Your task to perform on an android device: Clear all items from cart on ebay. Add razer huntsman to the cart on ebay, then select checkout. Image 0: 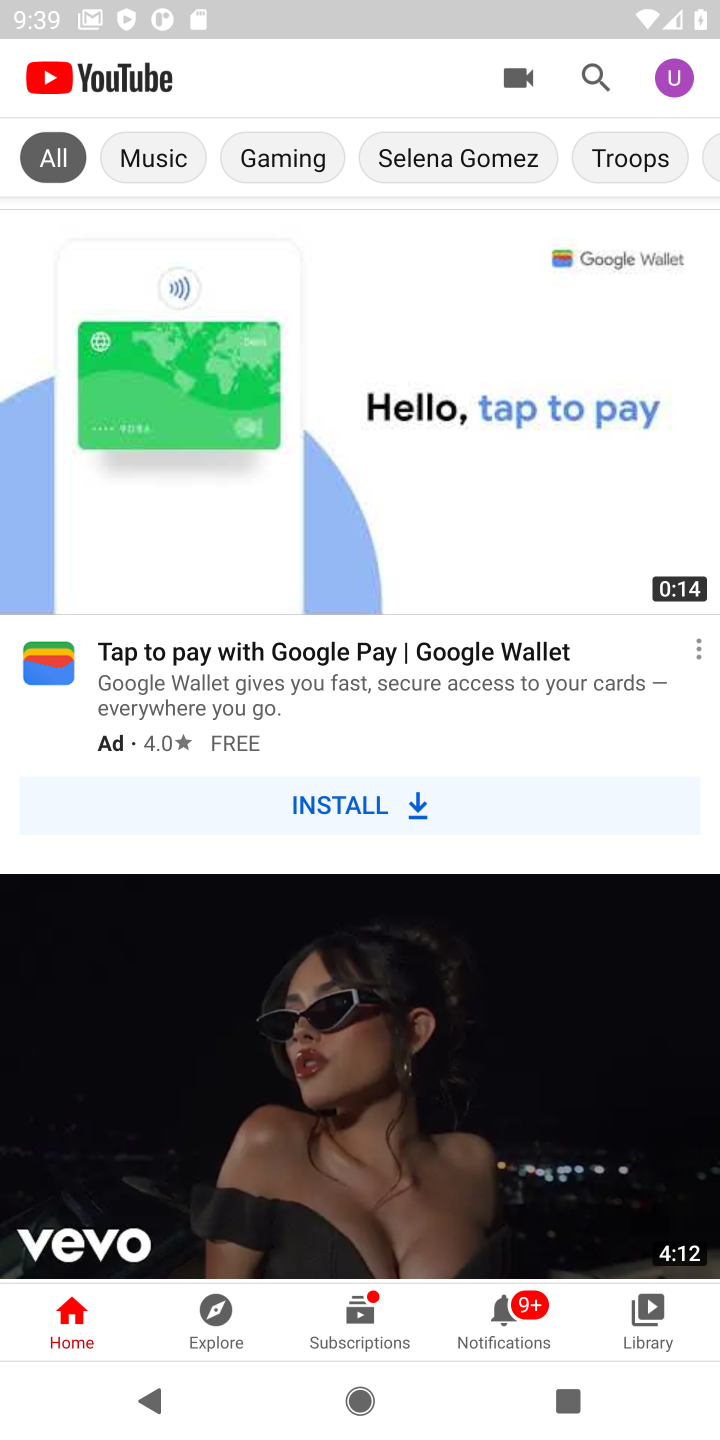
Step 0: press home button
Your task to perform on an android device: Clear all items from cart on ebay. Add razer huntsman to the cart on ebay, then select checkout. Image 1: 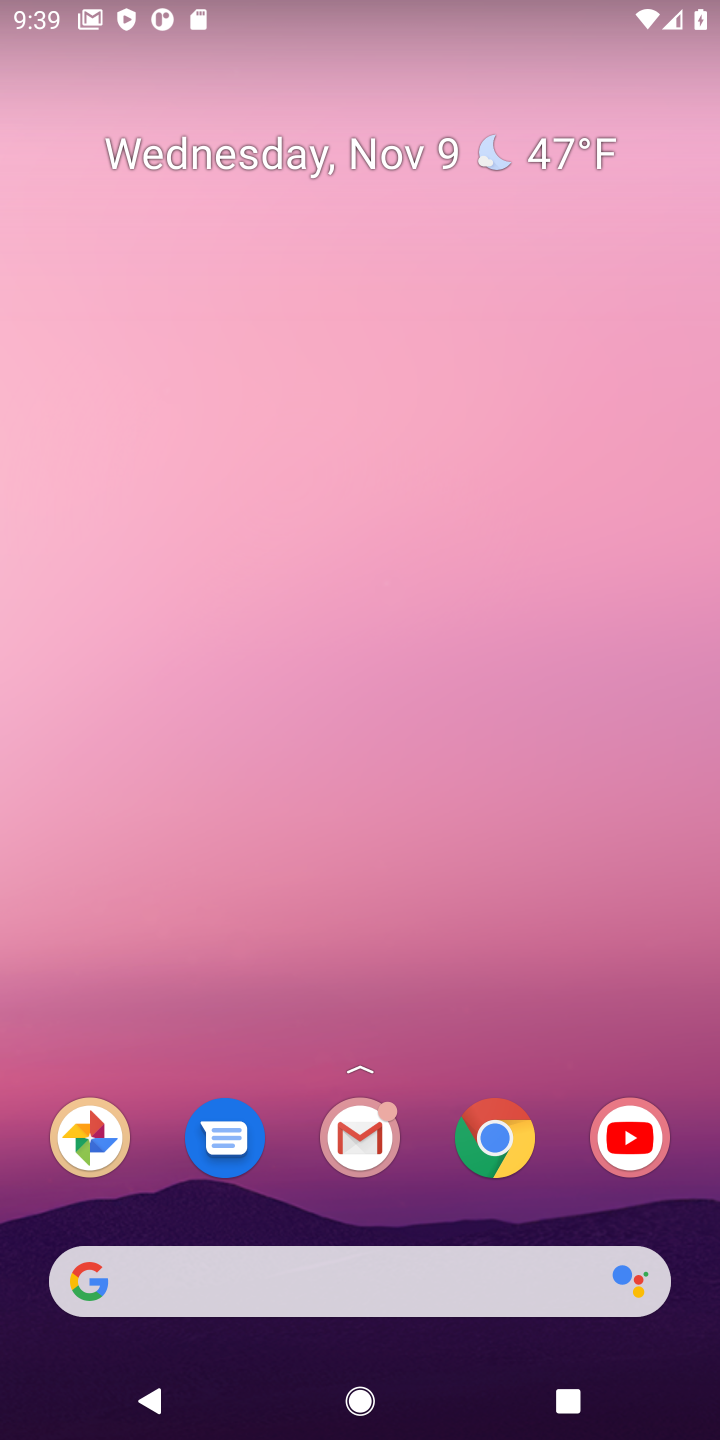
Step 1: drag from (455, 1134) to (416, 266)
Your task to perform on an android device: Clear all items from cart on ebay. Add razer huntsman to the cart on ebay, then select checkout. Image 2: 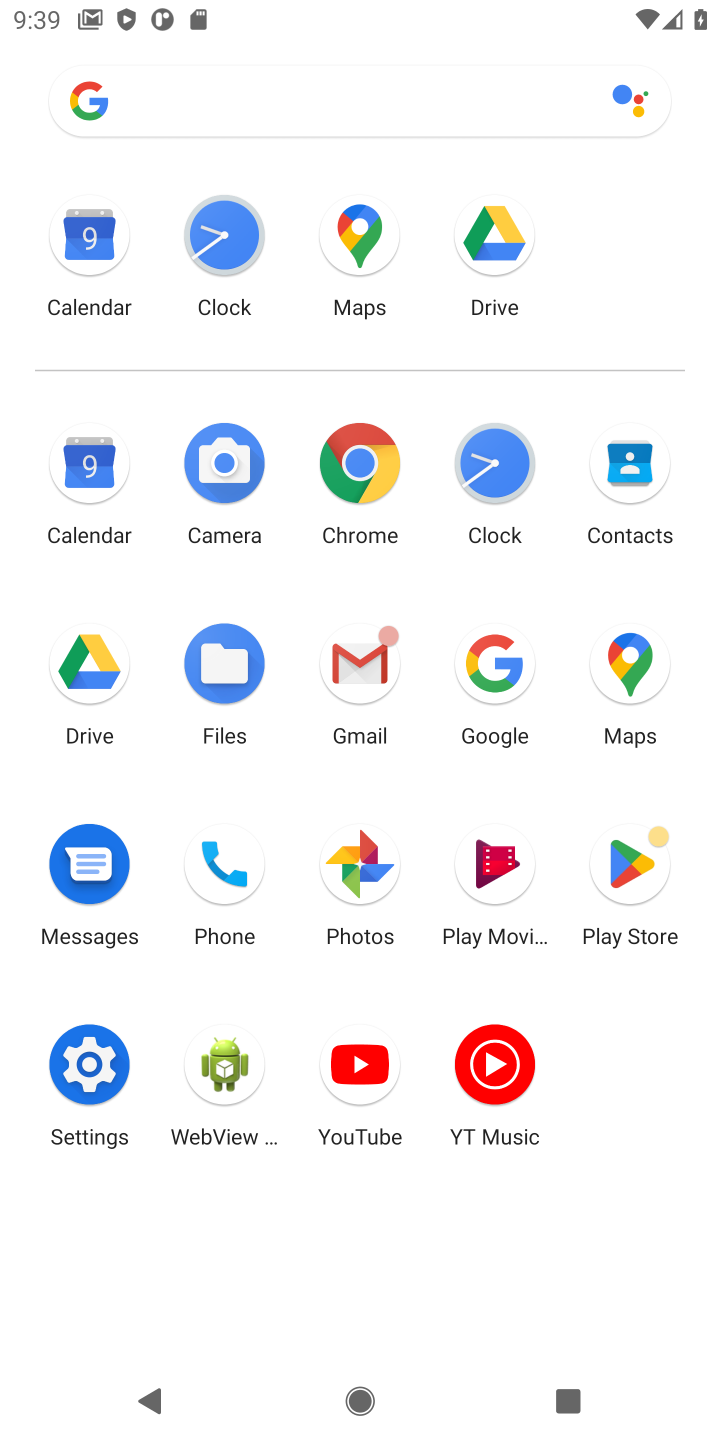
Step 2: click (368, 465)
Your task to perform on an android device: Clear all items from cart on ebay. Add razer huntsman to the cart on ebay, then select checkout. Image 3: 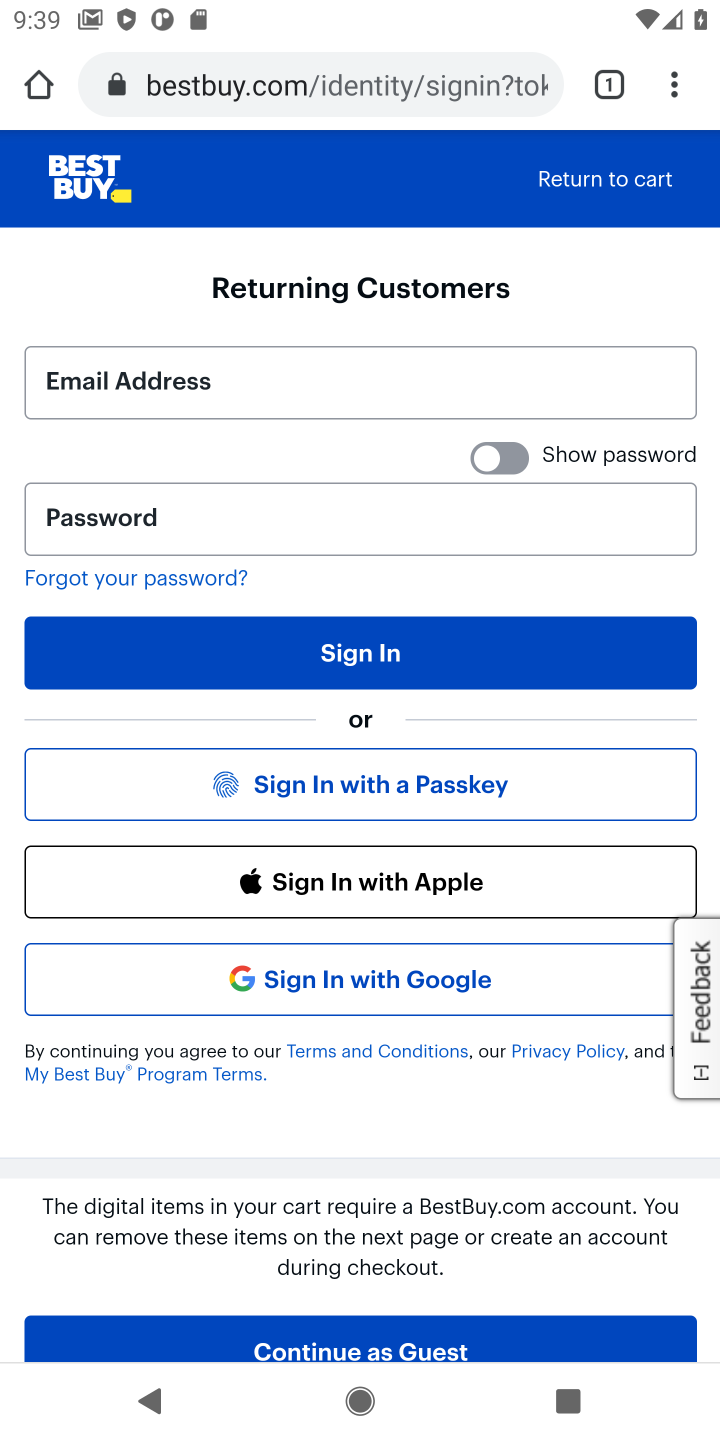
Step 3: click (289, 80)
Your task to perform on an android device: Clear all items from cart on ebay. Add razer huntsman to the cart on ebay, then select checkout. Image 4: 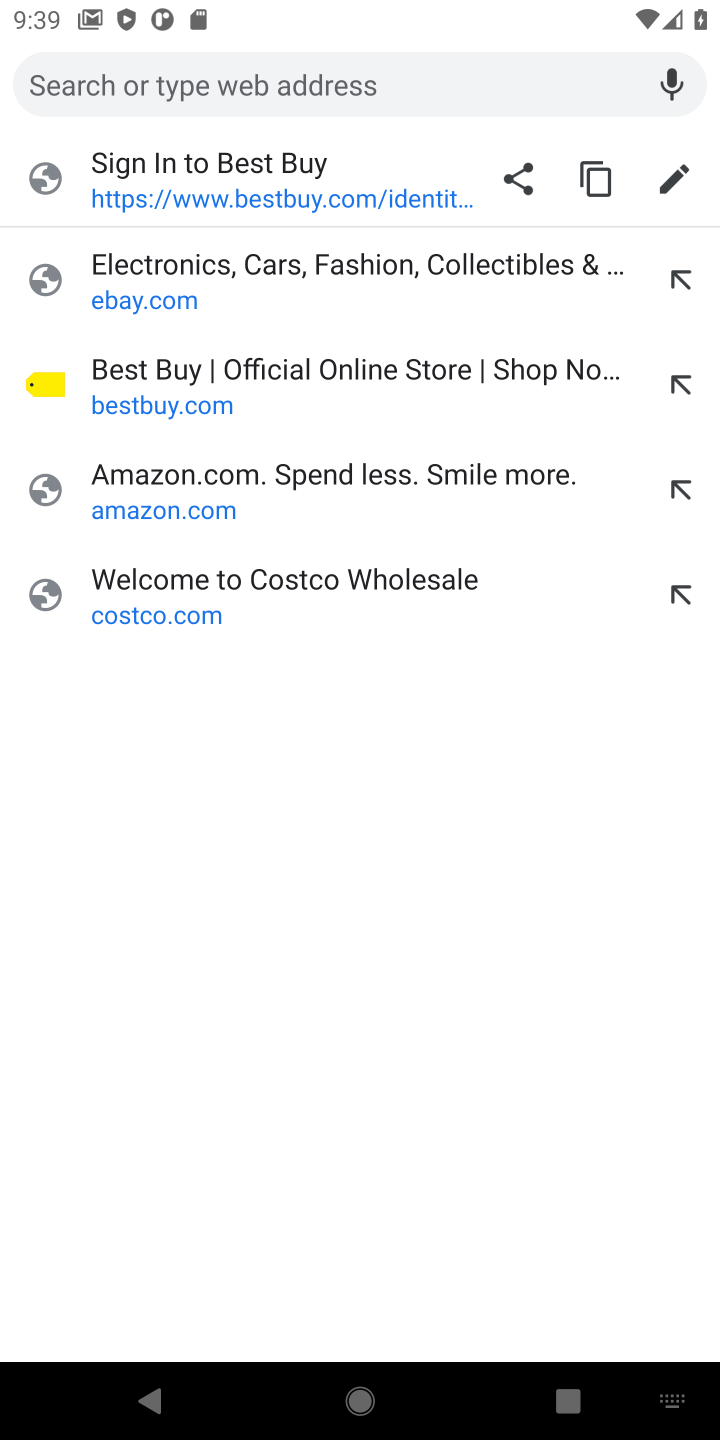
Step 4: type "ebay.com"
Your task to perform on an android device: Clear all items from cart on ebay. Add razer huntsman to the cart on ebay, then select checkout. Image 5: 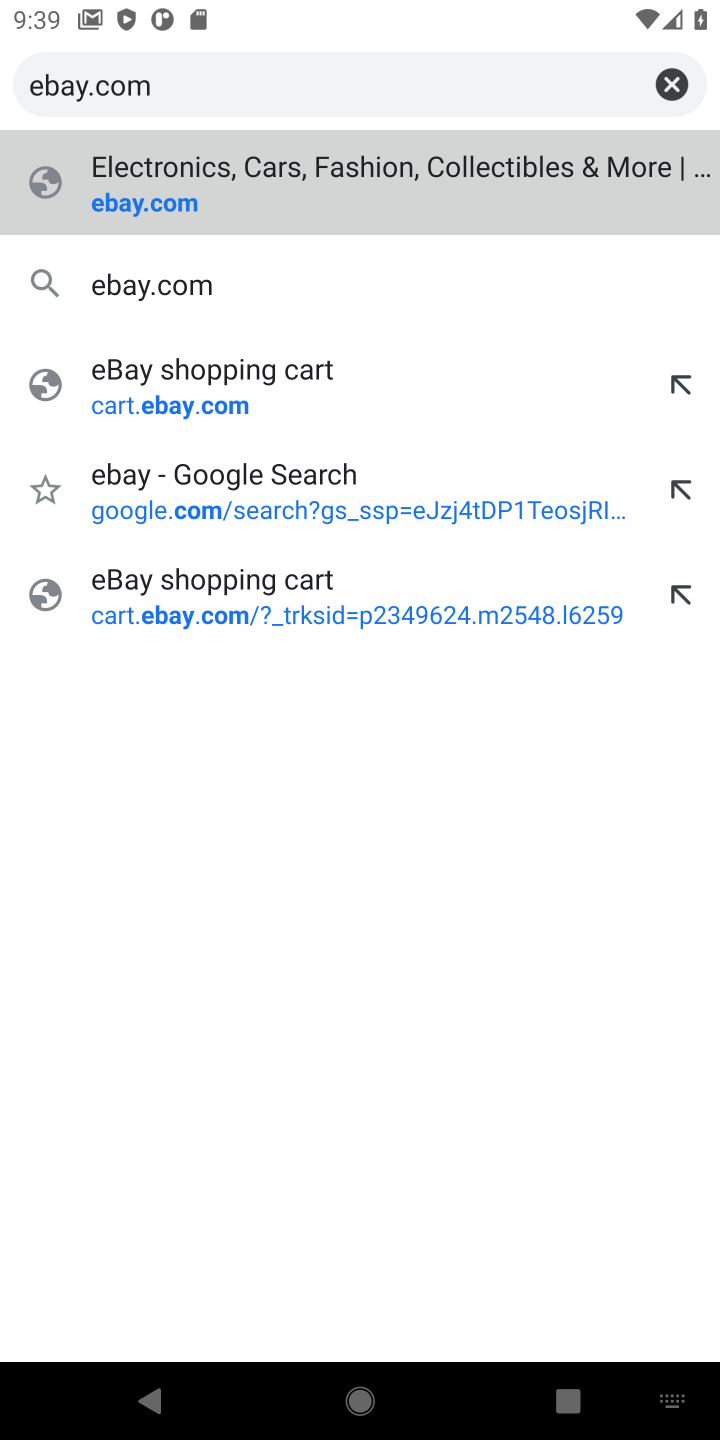
Step 5: press enter
Your task to perform on an android device: Clear all items from cart on ebay. Add razer huntsman to the cart on ebay, then select checkout. Image 6: 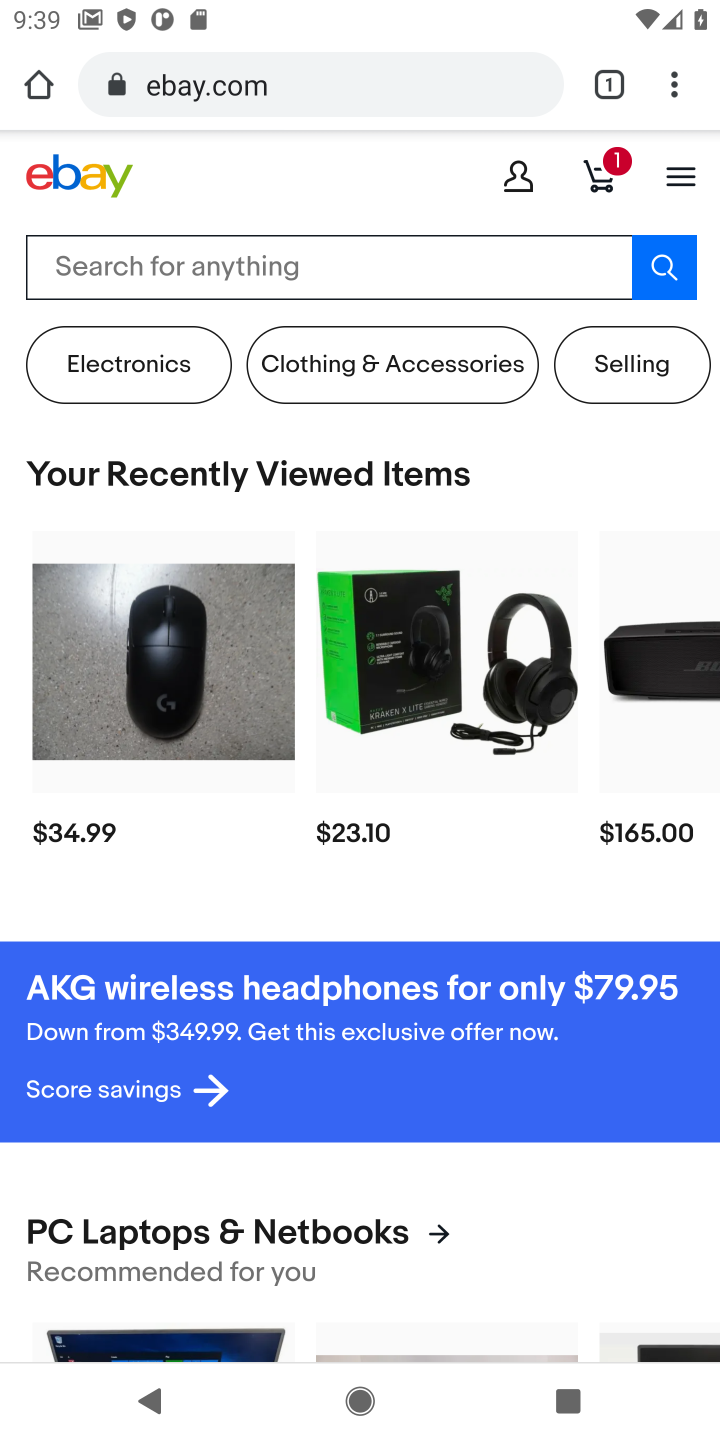
Step 6: click (601, 157)
Your task to perform on an android device: Clear all items from cart on ebay. Add razer huntsman to the cart on ebay, then select checkout. Image 7: 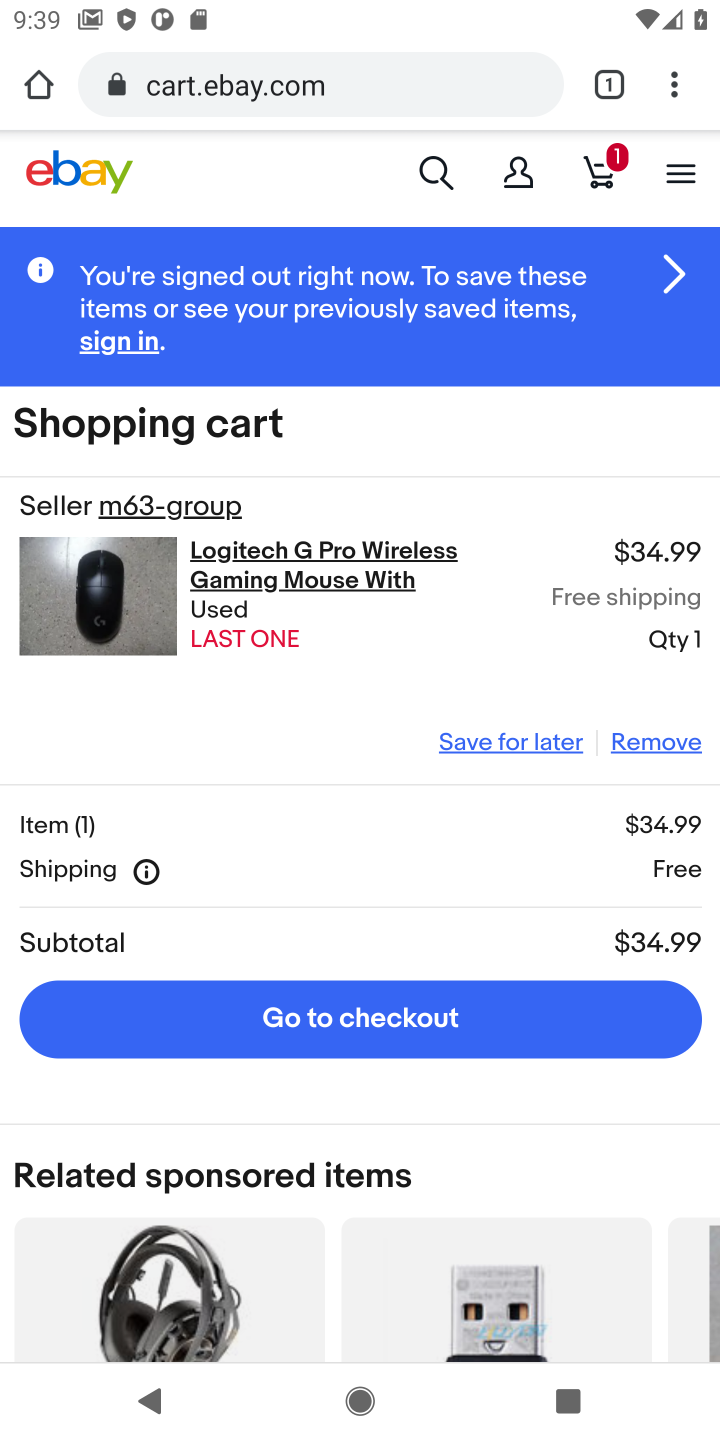
Step 7: click (665, 735)
Your task to perform on an android device: Clear all items from cart on ebay. Add razer huntsman to the cart on ebay, then select checkout. Image 8: 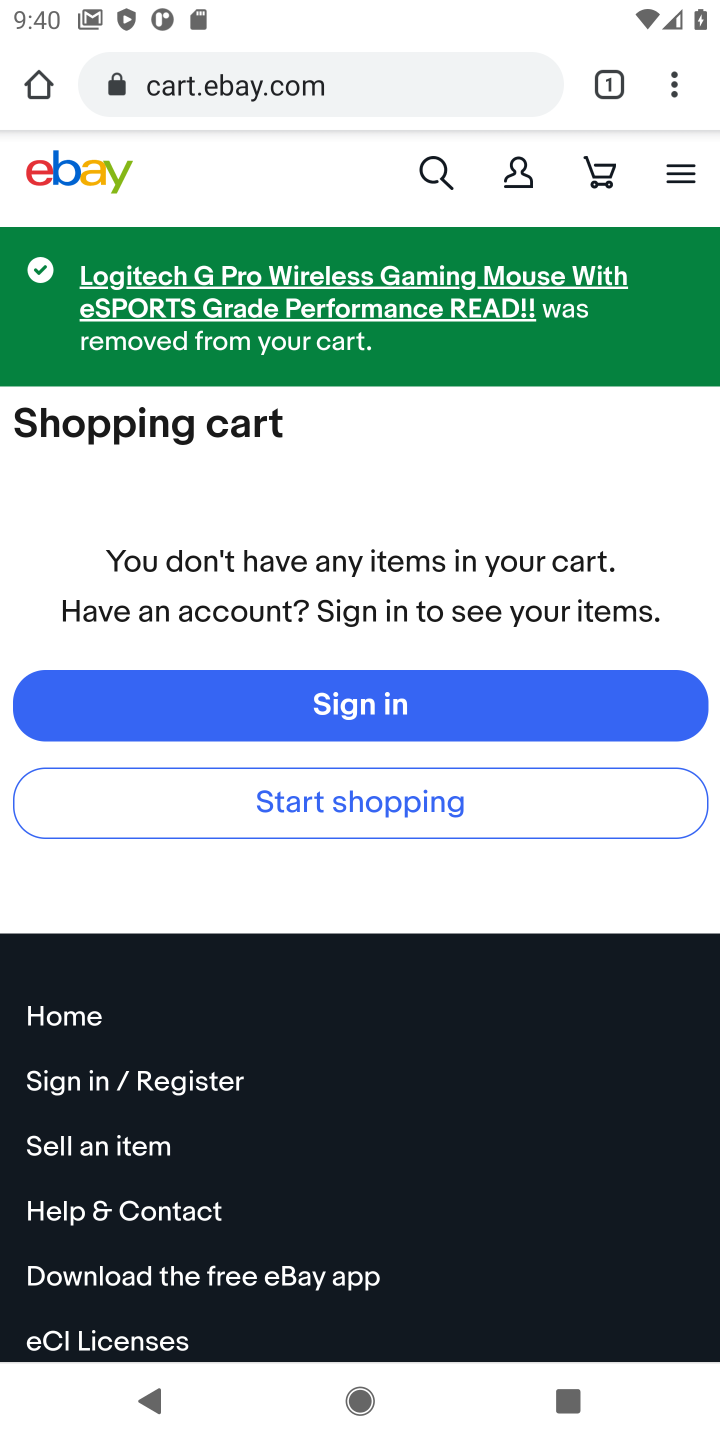
Step 8: click (434, 167)
Your task to perform on an android device: Clear all items from cart on ebay. Add razer huntsman to the cart on ebay, then select checkout. Image 9: 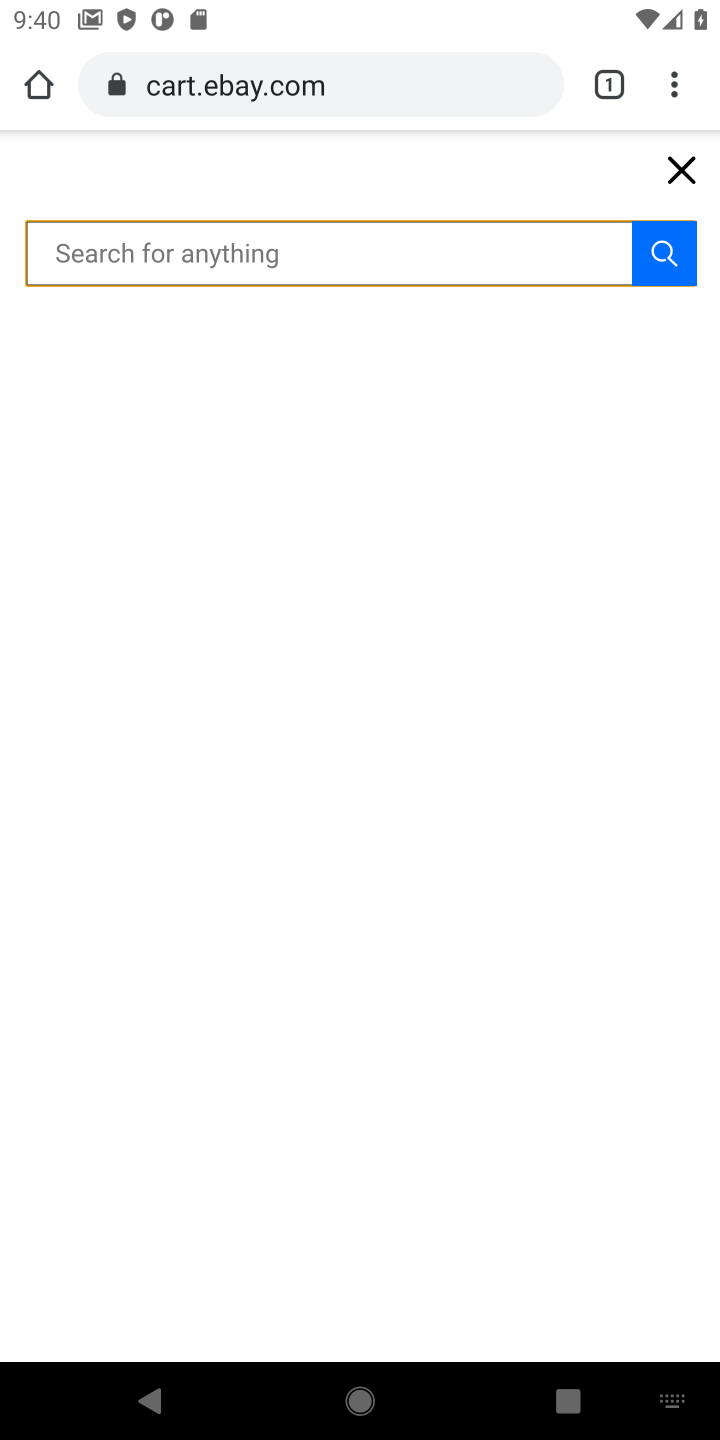
Step 9: type "razer huntsman"
Your task to perform on an android device: Clear all items from cart on ebay. Add razer huntsman to the cart on ebay, then select checkout. Image 10: 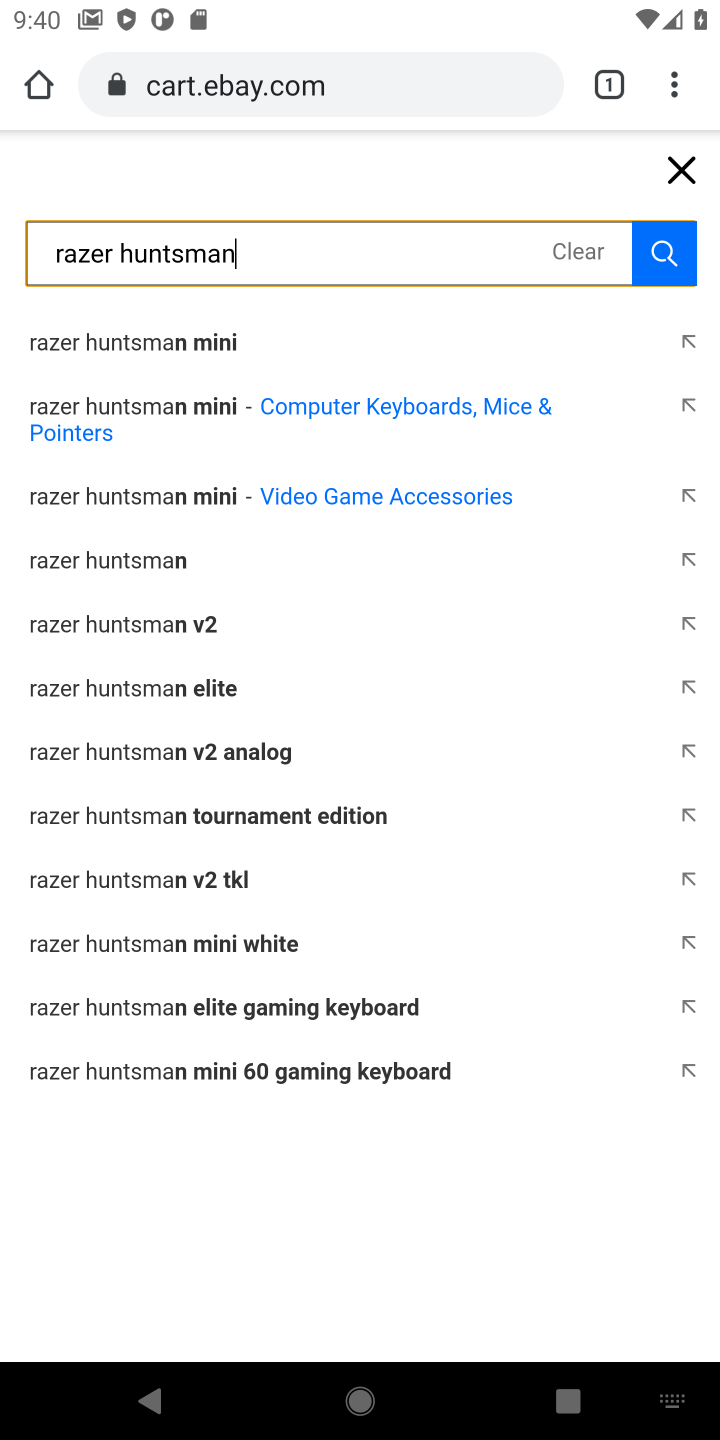
Step 10: press enter
Your task to perform on an android device: Clear all items from cart on ebay. Add razer huntsman to the cart on ebay, then select checkout. Image 11: 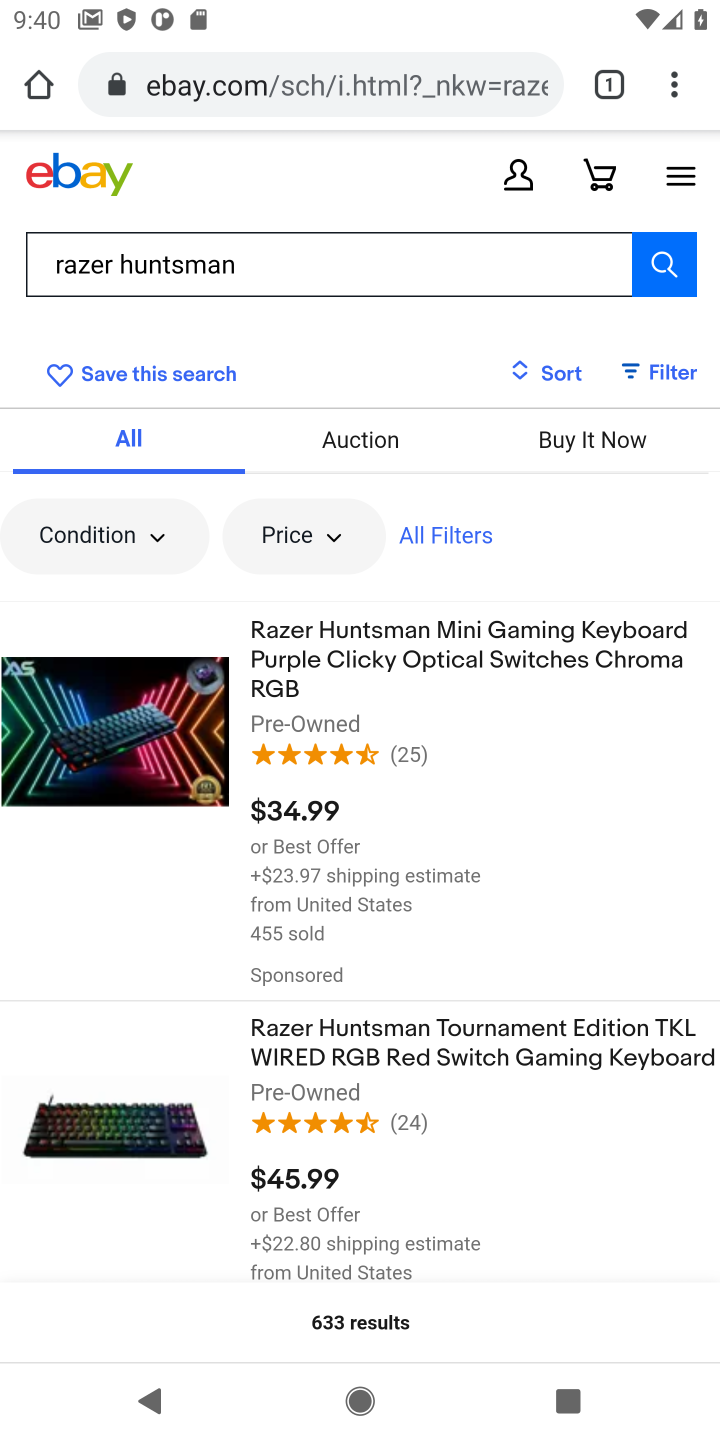
Step 11: click (280, 664)
Your task to perform on an android device: Clear all items from cart on ebay. Add razer huntsman to the cart on ebay, then select checkout. Image 12: 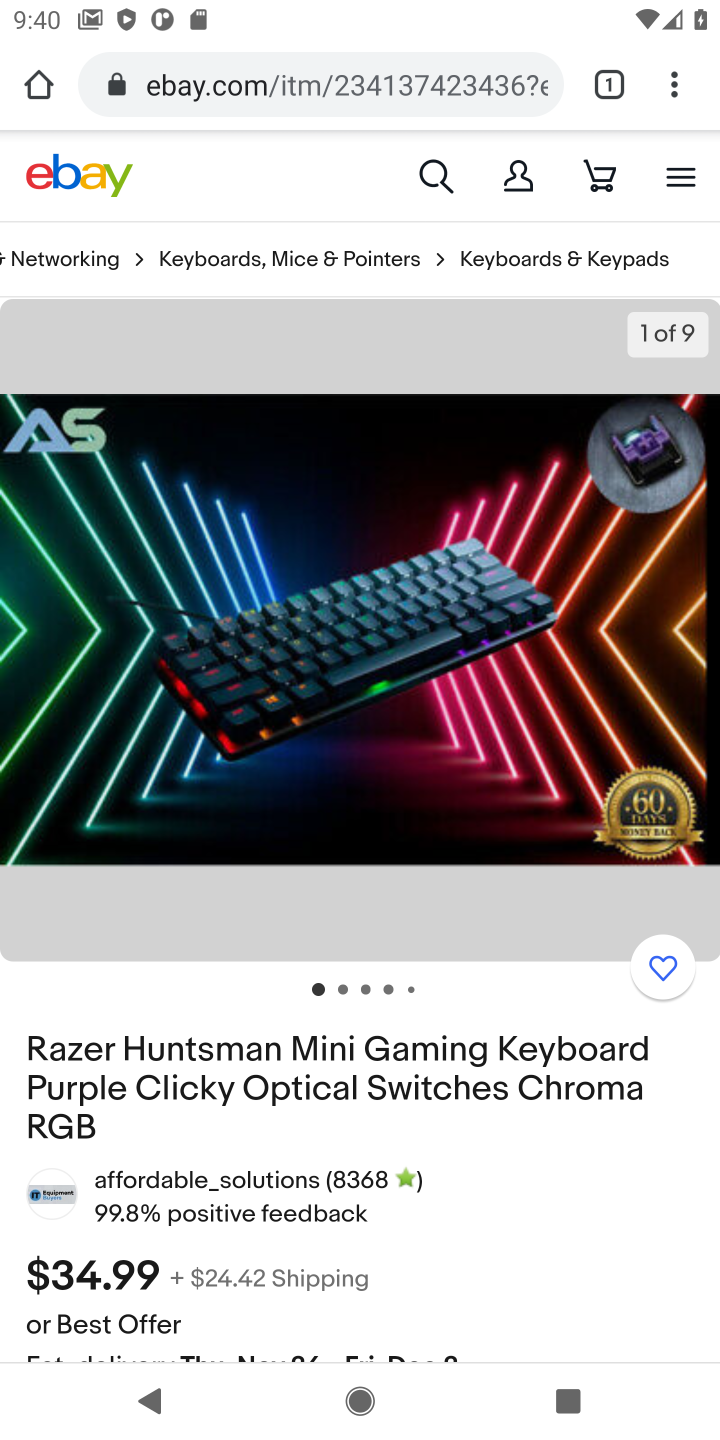
Step 12: drag from (342, 1154) to (369, 264)
Your task to perform on an android device: Clear all items from cart on ebay. Add razer huntsman to the cart on ebay, then select checkout. Image 13: 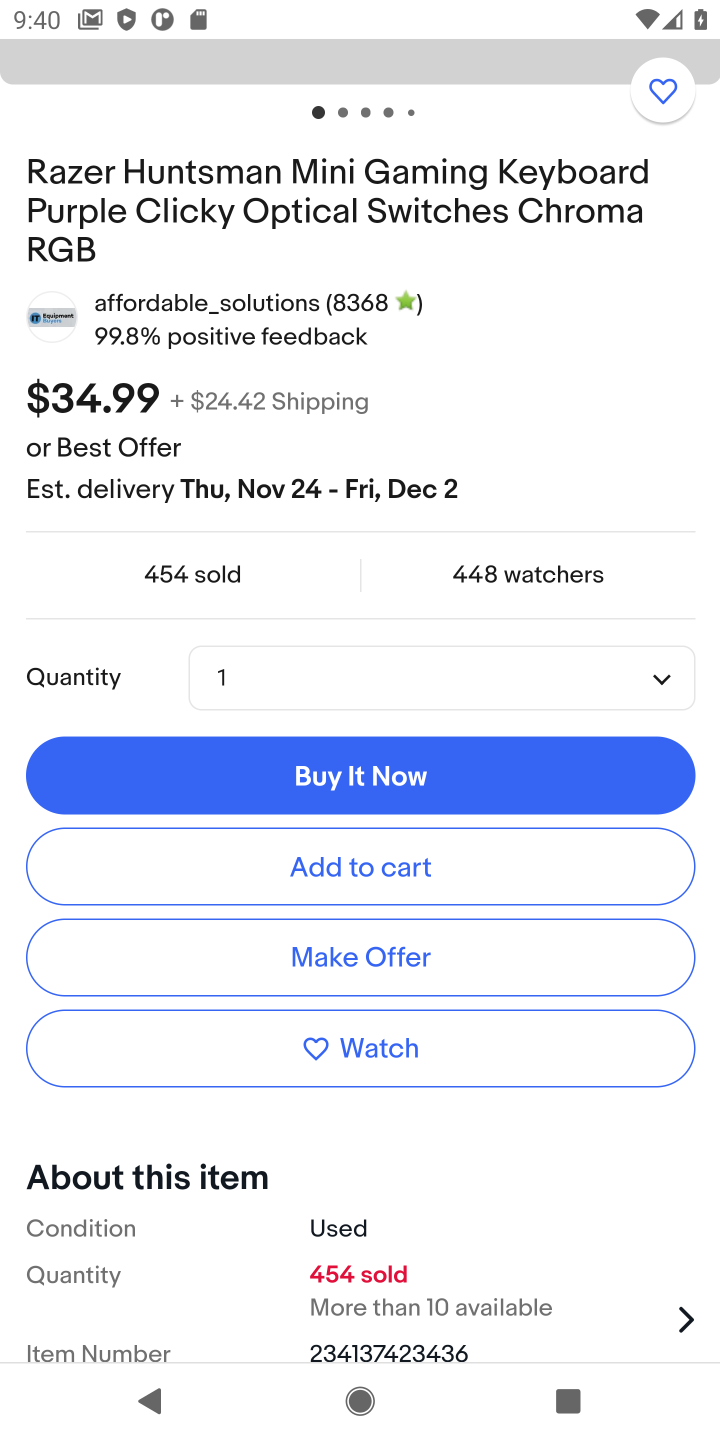
Step 13: click (465, 875)
Your task to perform on an android device: Clear all items from cart on ebay. Add razer huntsman to the cart on ebay, then select checkout. Image 14: 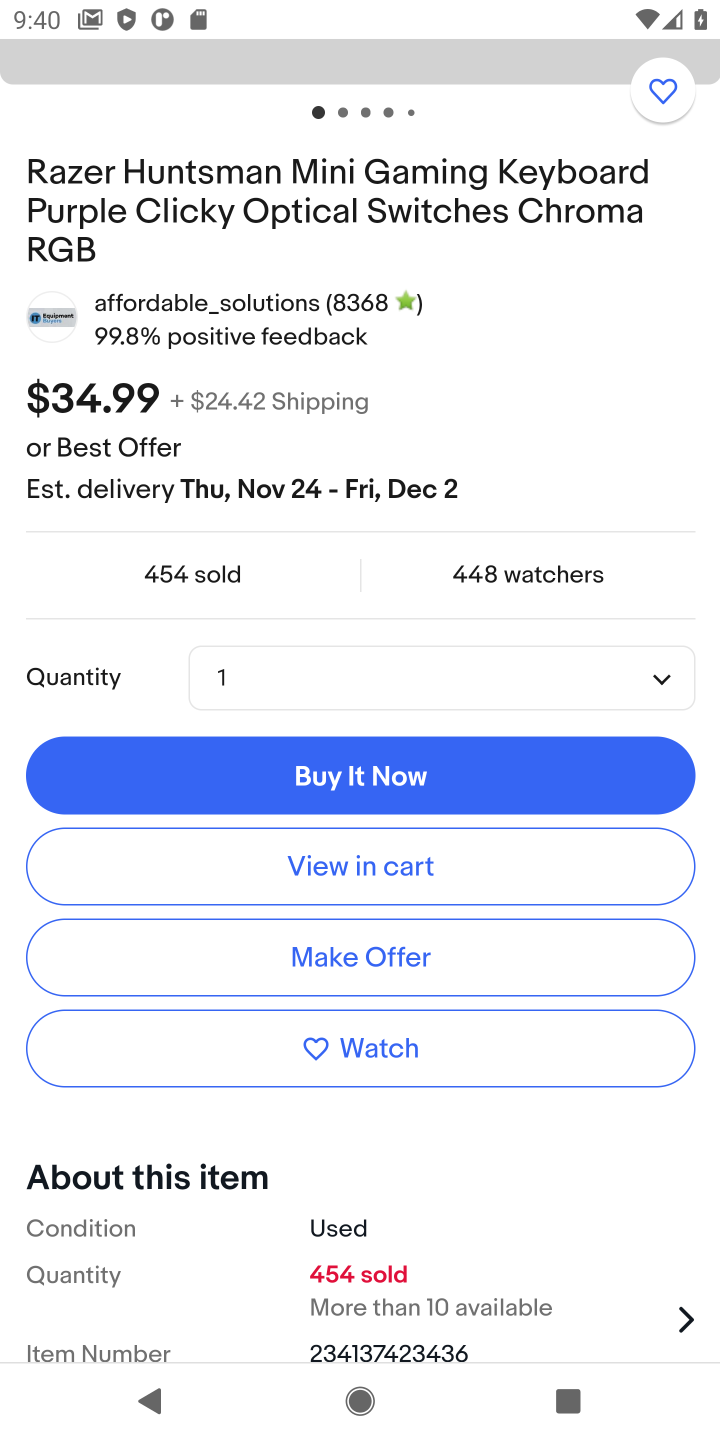
Step 14: click (391, 884)
Your task to perform on an android device: Clear all items from cart on ebay. Add razer huntsman to the cart on ebay, then select checkout. Image 15: 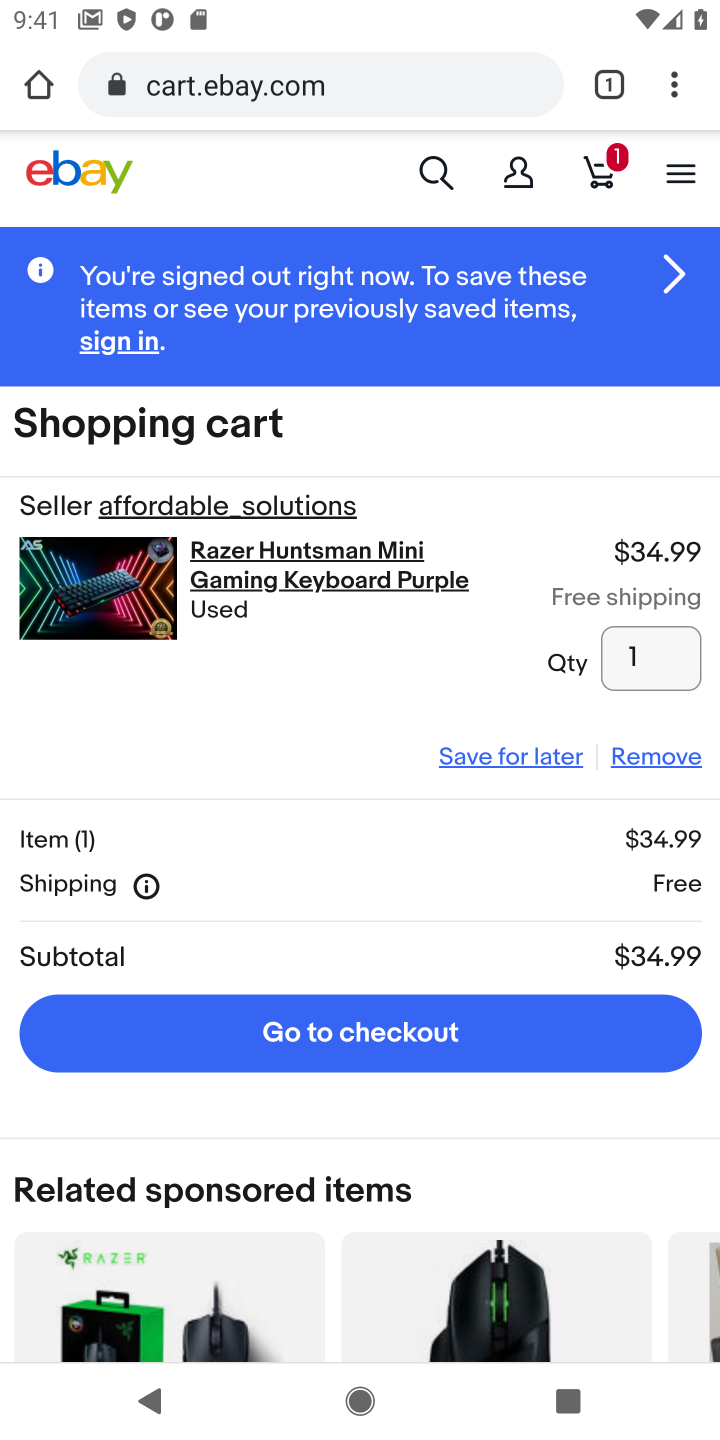
Step 15: click (437, 1025)
Your task to perform on an android device: Clear all items from cart on ebay. Add razer huntsman to the cart on ebay, then select checkout. Image 16: 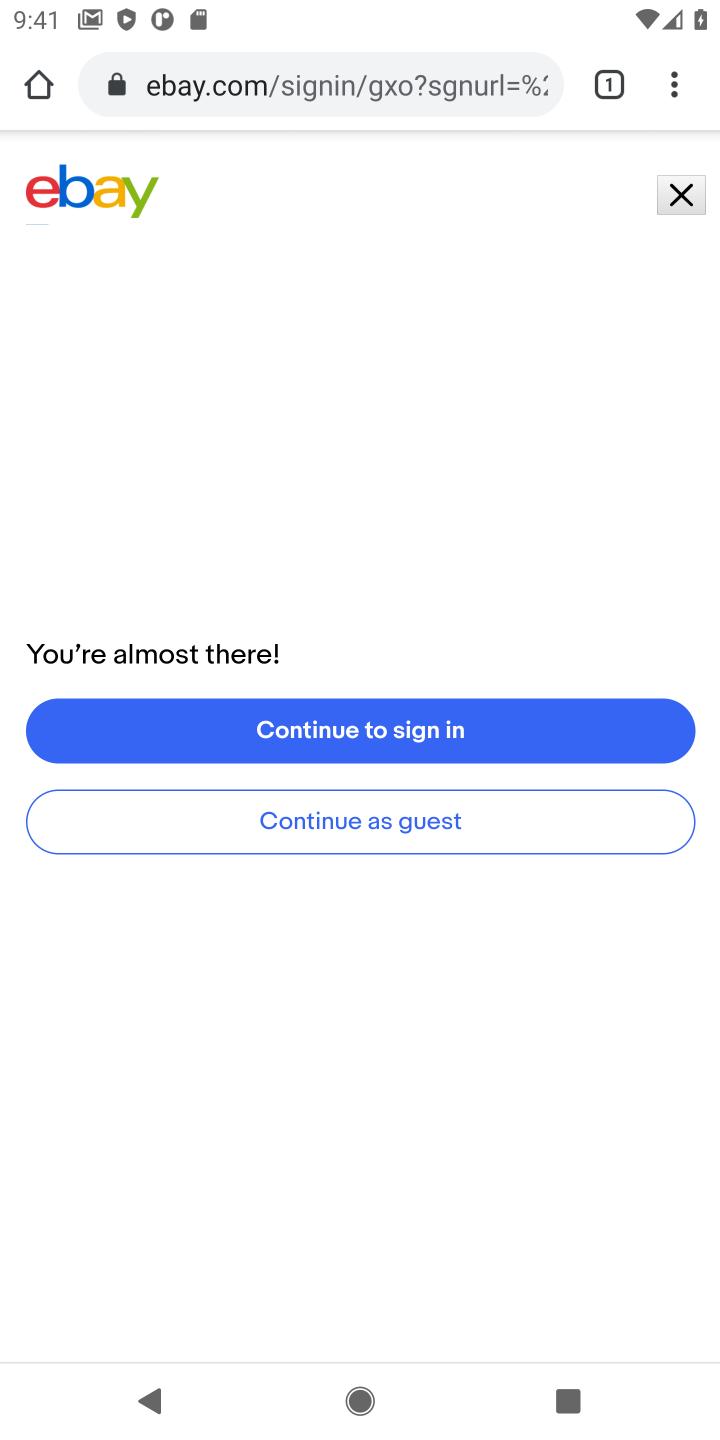
Step 16: task complete